Your task to perform on an android device: Open Maps and search for coffee Image 0: 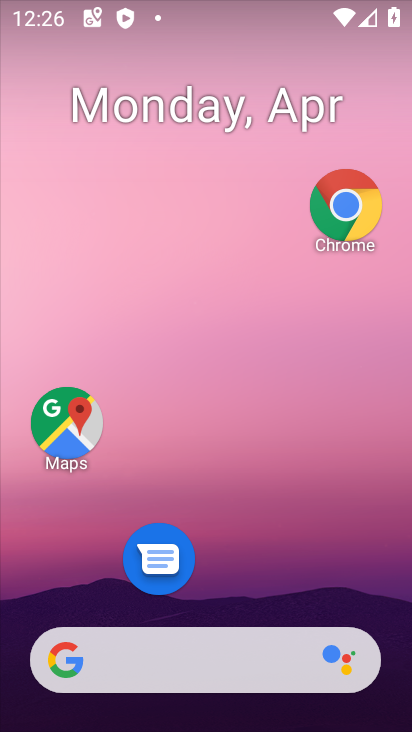
Step 0: click (84, 441)
Your task to perform on an android device: Open Maps and search for coffee Image 1: 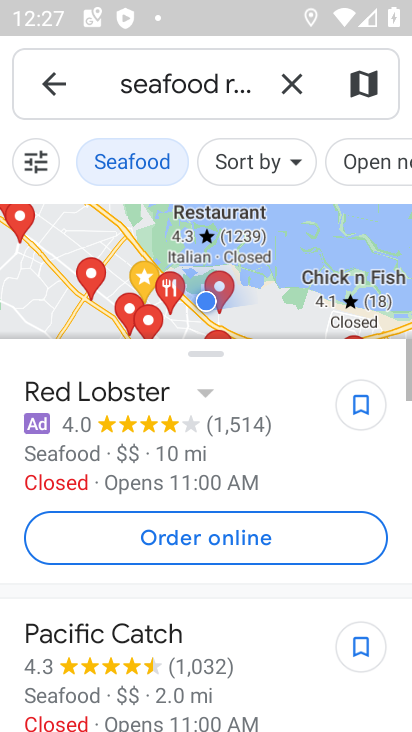
Step 1: click (303, 83)
Your task to perform on an android device: Open Maps and search for coffee Image 2: 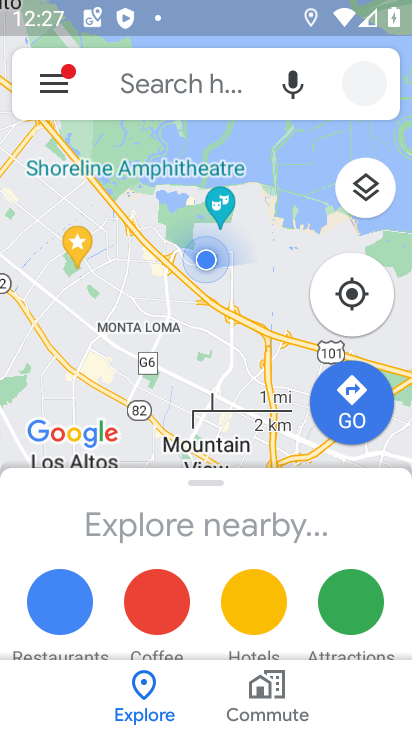
Step 2: click (242, 90)
Your task to perform on an android device: Open Maps and search for coffee Image 3: 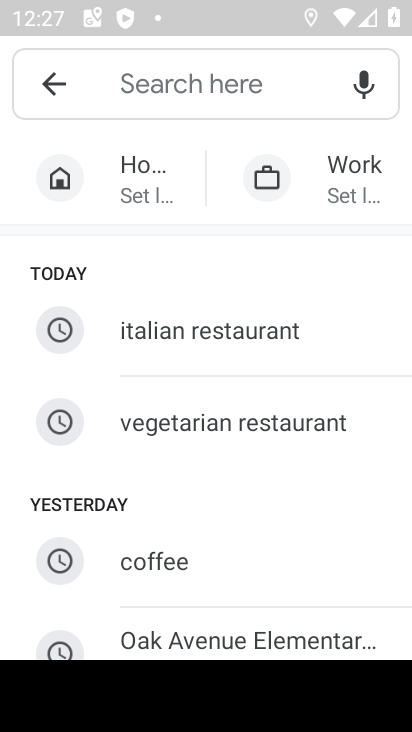
Step 3: click (202, 579)
Your task to perform on an android device: Open Maps and search for coffee Image 4: 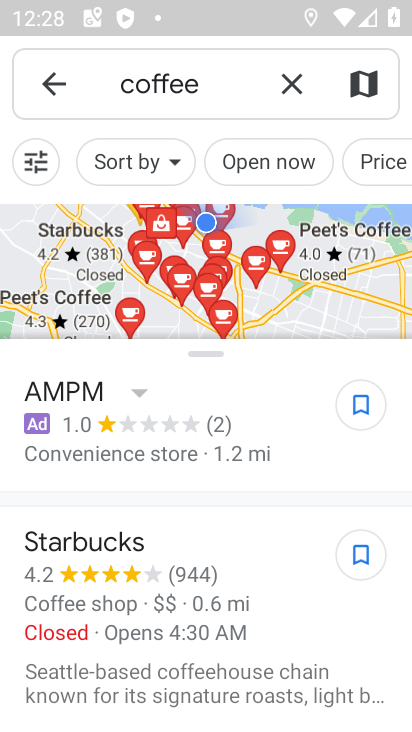
Step 4: task complete